Your task to perform on an android device: turn pop-ups off in chrome Image 0: 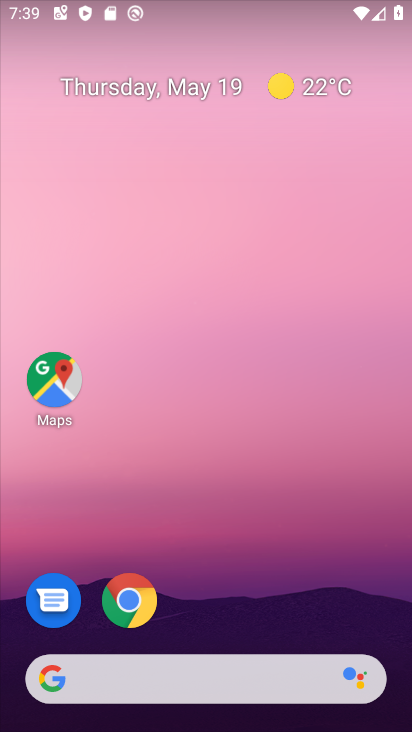
Step 0: drag from (330, 595) to (254, 136)
Your task to perform on an android device: turn pop-ups off in chrome Image 1: 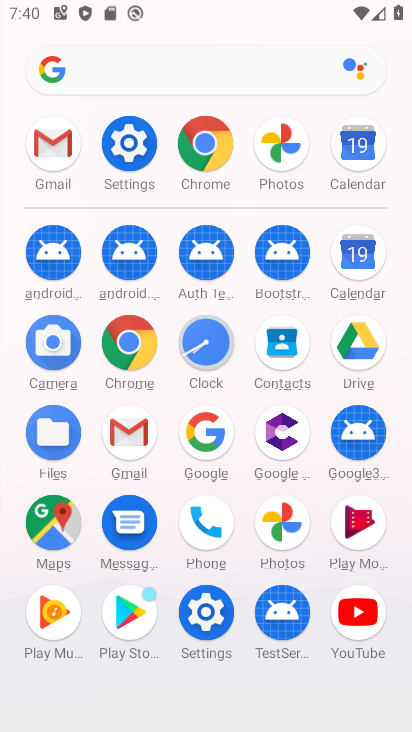
Step 1: click (138, 353)
Your task to perform on an android device: turn pop-ups off in chrome Image 2: 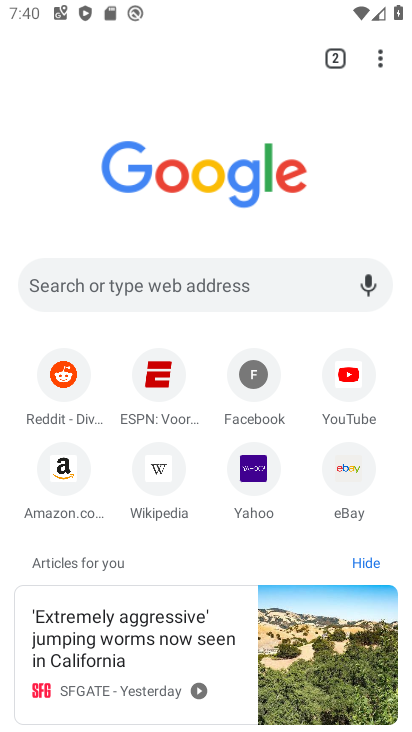
Step 2: drag from (385, 70) to (199, 498)
Your task to perform on an android device: turn pop-ups off in chrome Image 3: 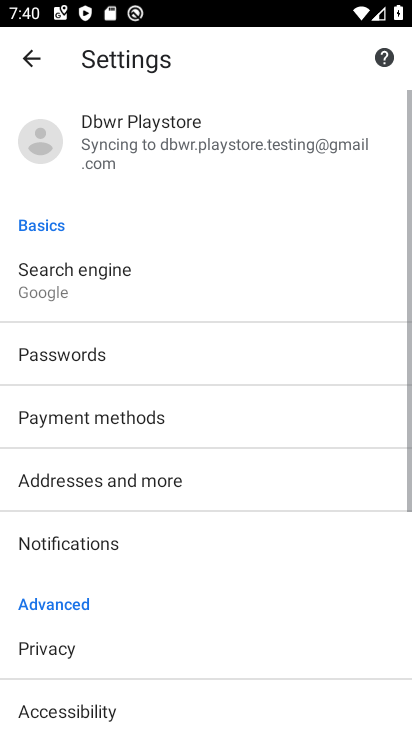
Step 3: drag from (185, 632) to (207, 320)
Your task to perform on an android device: turn pop-ups off in chrome Image 4: 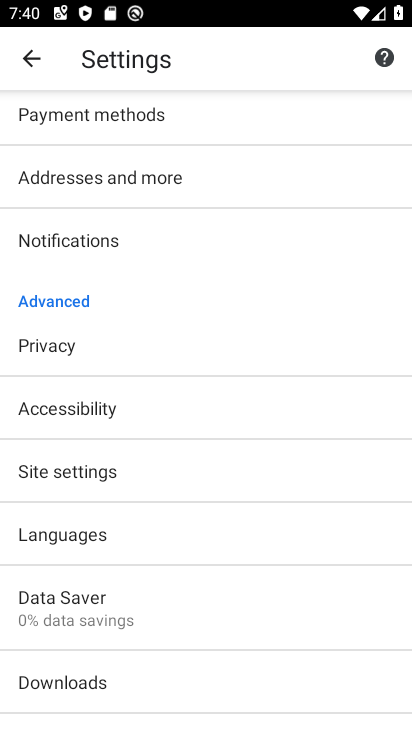
Step 4: click (123, 477)
Your task to perform on an android device: turn pop-ups off in chrome Image 5: 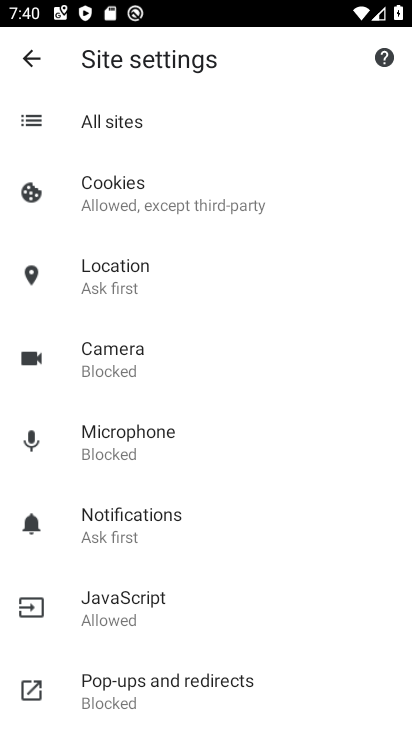
Step 5: drag from (340, 628) to (348, 291)
Your task to perform on an android device: turn pop-ups off in chrome Image 6: 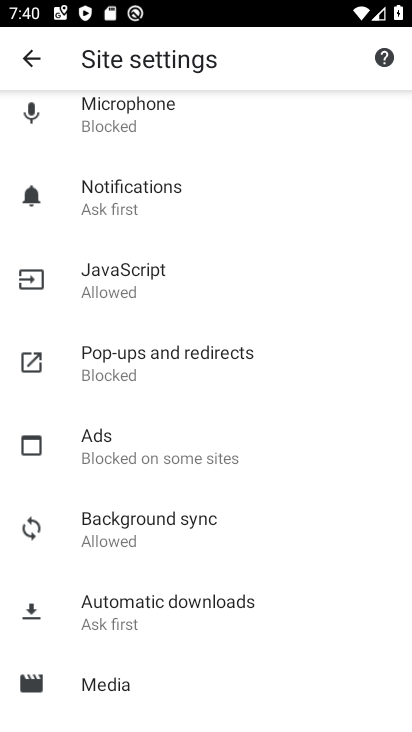
Step 6: click (292, 357)
Your task to perform on an android device: turn pop-ups off in chrome Image 7: 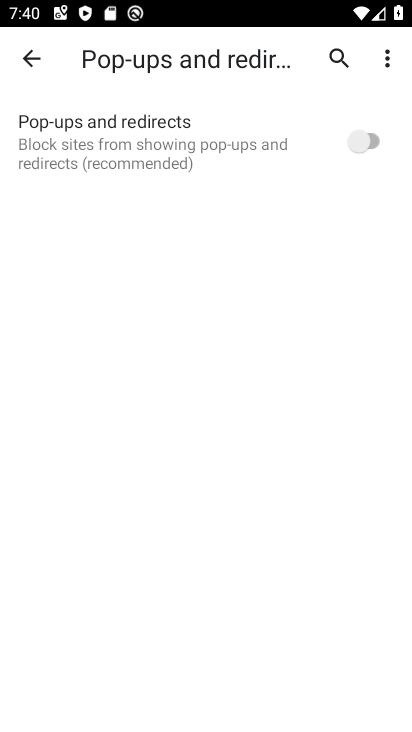
Step 7: task complete